Your task to perform on an android device: make emails show in primary in the gmail app Image 0: 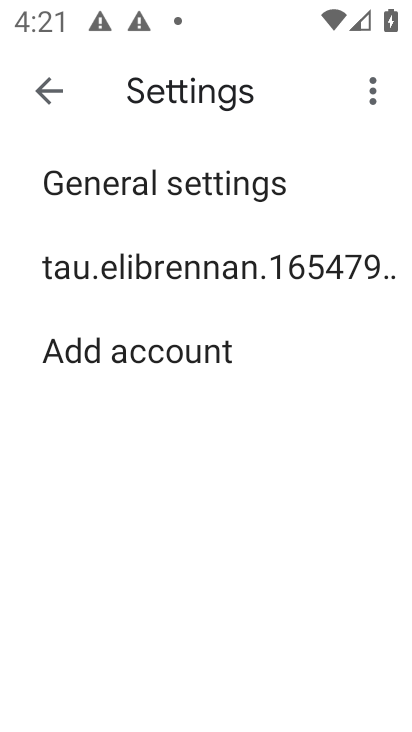
Step 0: click (205, 266)
Your task to perform on an android device: make emails show in primary in the gmail app Image 1: 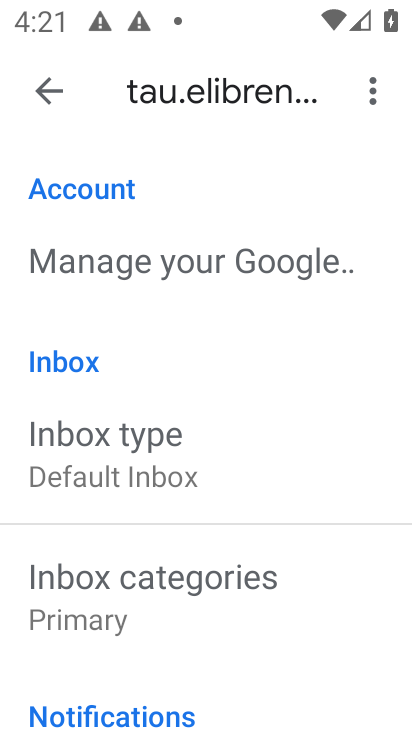
Step 1: task complete